Your task to perform on an android device: empty trash in google photos Image 0: 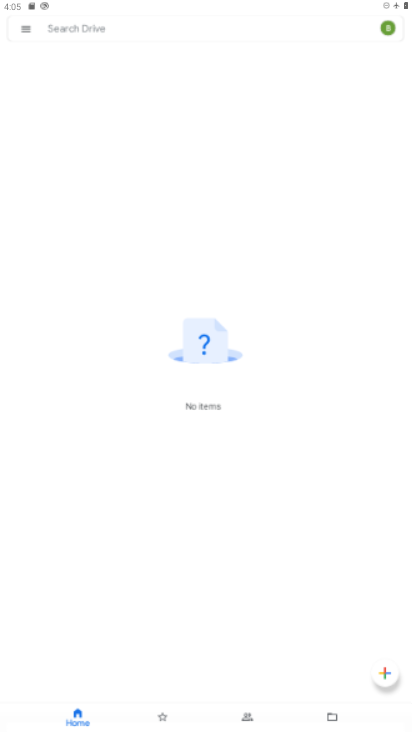
Step 0: press home button
Your task to perform on an android device: empty trash in google photos Image 1: 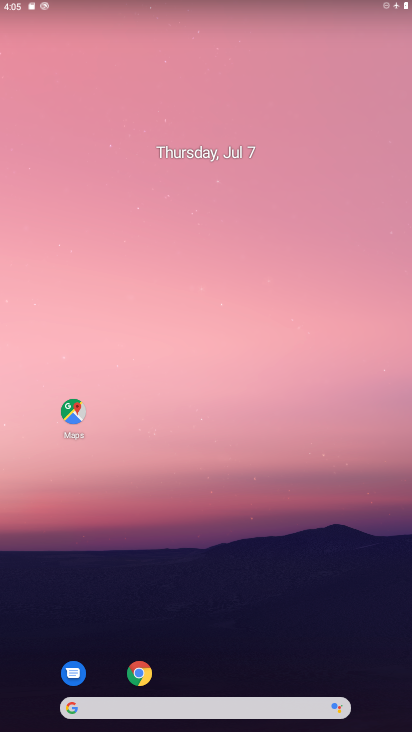
Step 1: drag from (228, 677) to (224, 43)
Your task to perform on an android device: empty trash in google photos Image 2: 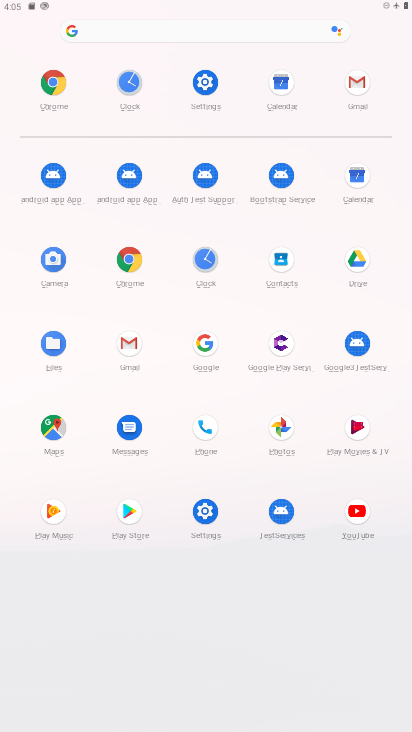
Step 2: click (278, 423)
Your task to perform on an android device: empty trash in google photos Image 3: 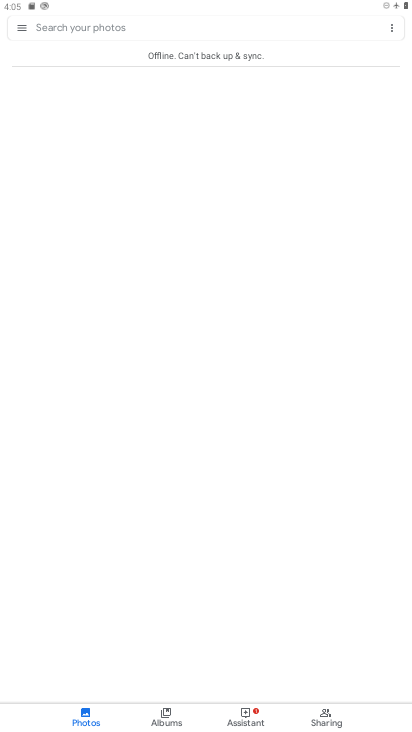
Step 3: press home button
Your task to perform on an android device: empty trash in google photos Image 4: 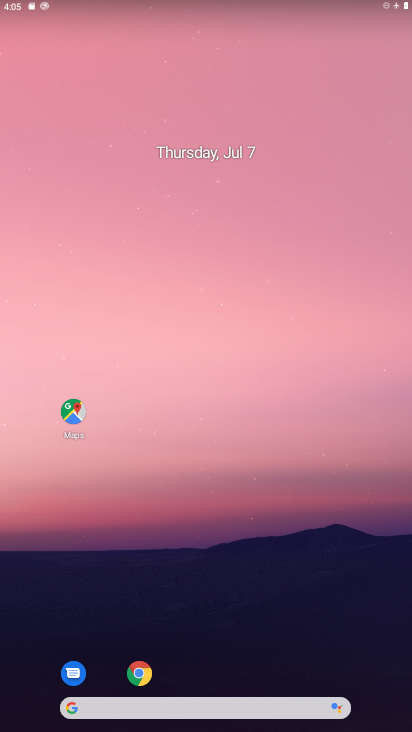
Step 4: drag from (206, 669) to (191, 75)
Your task to perform on an android device: empty trash in google photos Image 5: 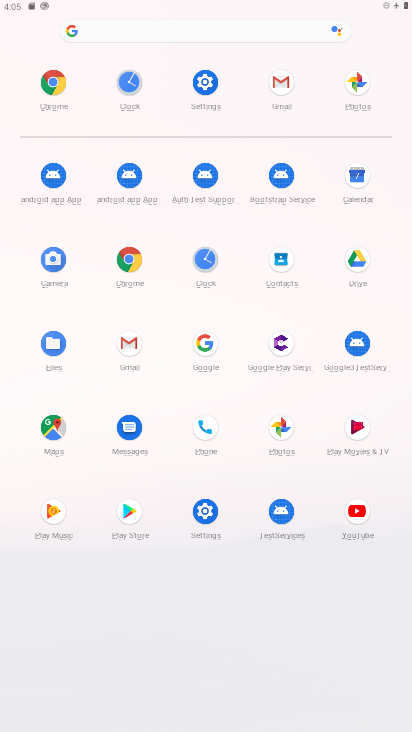
Step 5: click (282, 424)
Your task to perform on an android device: empty trash in google photos Image 6: 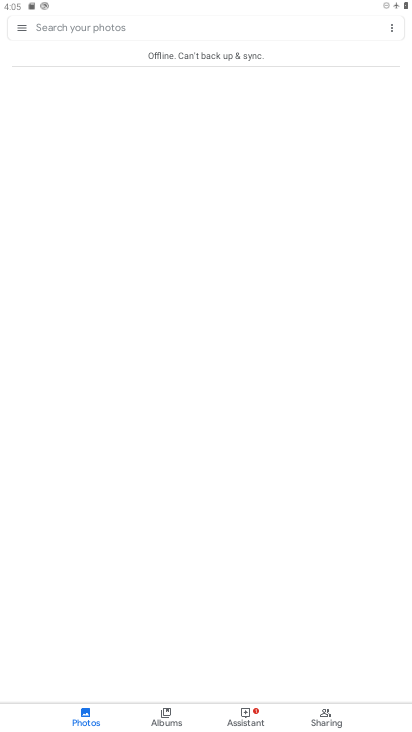
Step 6: click (19, 29)
Your task to perform on an android device: empty trash in google photos Image 7: 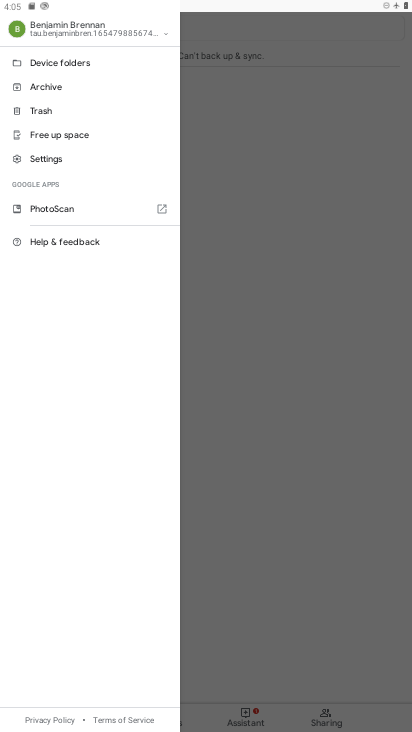
Step 7: click (48, 107)
Your task to perform on an android device: empty trash in google photos Image 8: 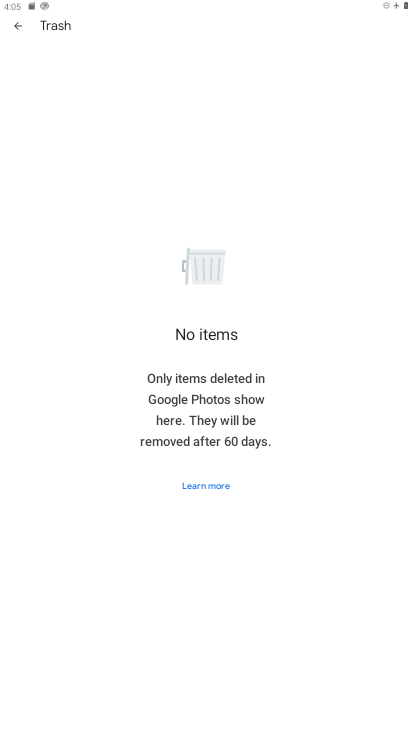
Step 8: task complete